Your task to perform on an android device: Open CNN.com Image 0: 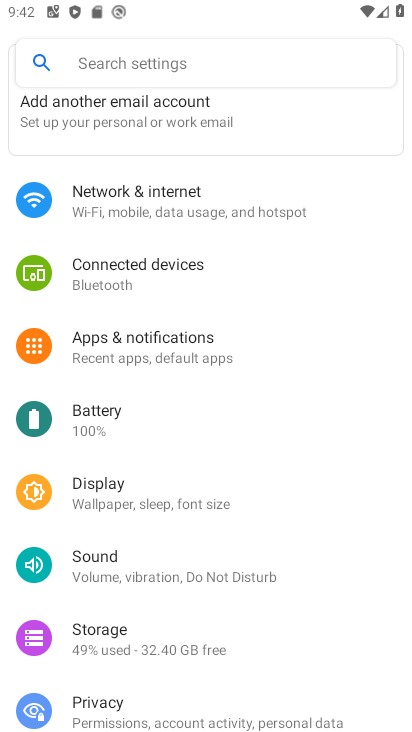
Step 0: press home button
Your task to perform on an android device: Open CNN.com Image 1: 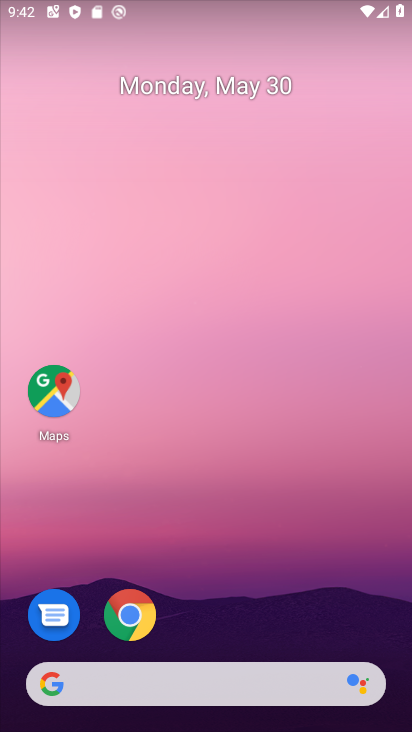
Step 1: click (152, 601)
Your task to perform on an android device: Open CNN.com Image 2: 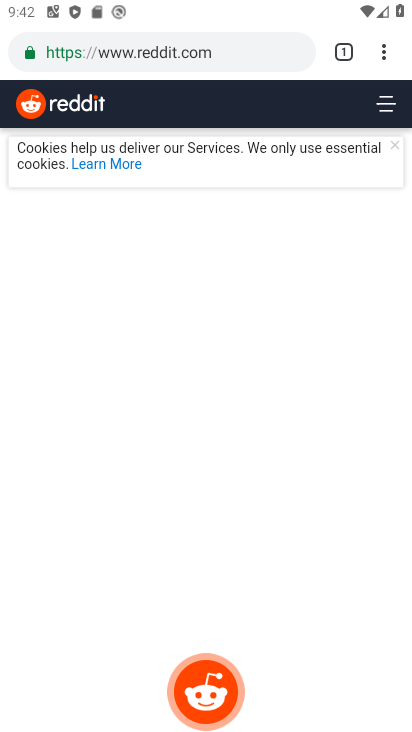
Step 2: click (132, 50)
Your task to perform on an android device: Open CNN.com Image 3: 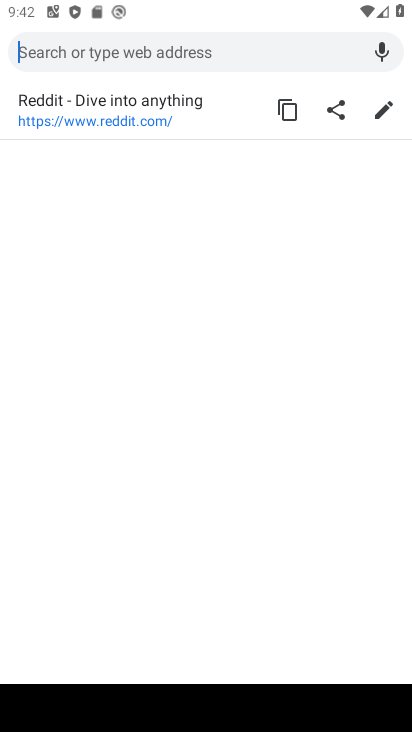
Step 3: type "CNN.com"
Your task to perform on an android device: Open CNN.com Image 4: 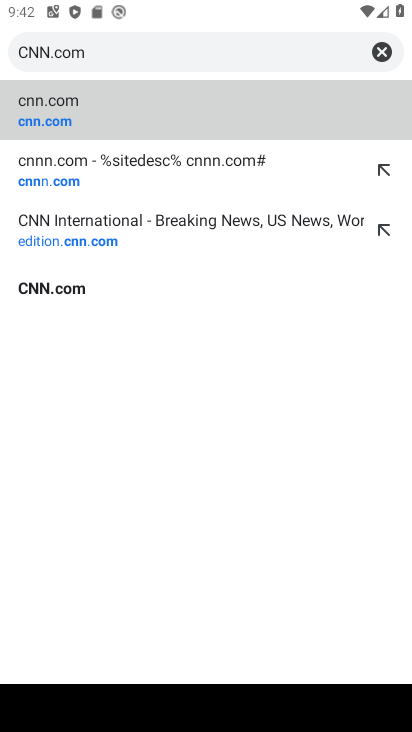
Step 4: click (130, 115)
Your task to perform on an android device: Open CNN.com Image 5: 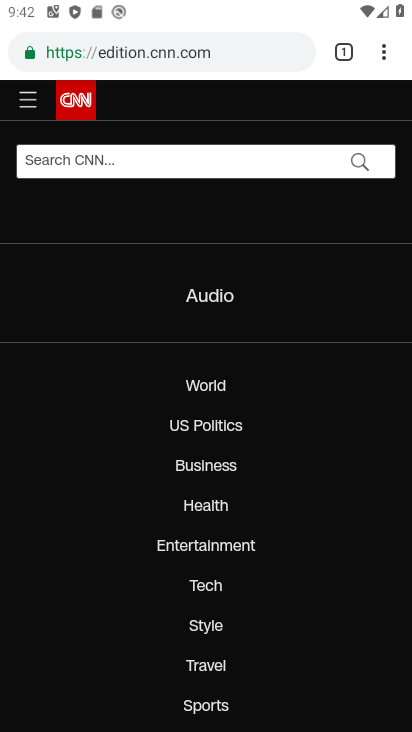
Step 5: task complete